Your task to perform on an android device: toggle priority inbox in the gmail app Image 0: 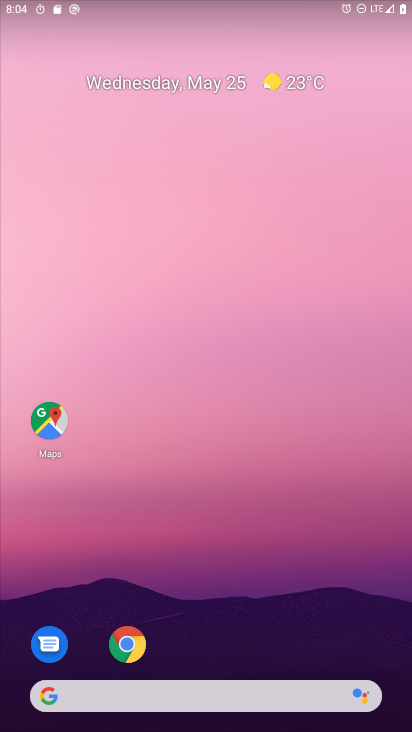
Step 0: drag from (351, 631) to (323, 31)
Your task to perform on an android device: toggle priority inbox in the gmail app Image 1: 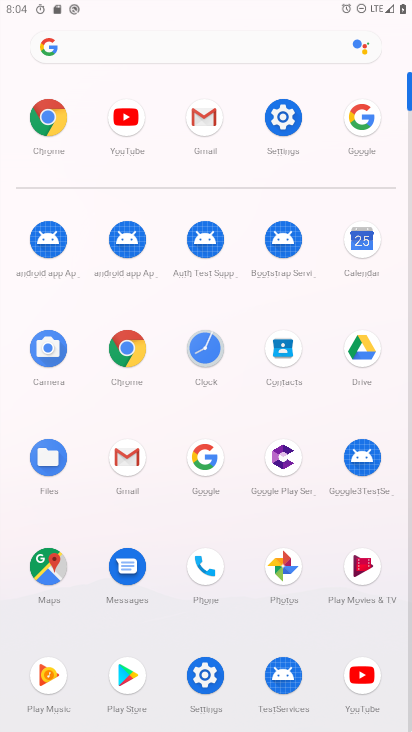
Step 1: click (128, 473)
Your task to perform on an android device: toggle priority inbox in the gmail app Image 2: 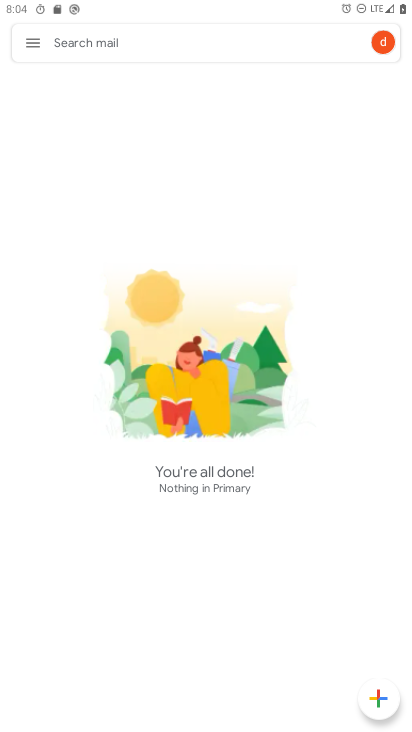
Step 2: click (39, 48)
Your task to perform on an android device: toggle priority inbox in the gmail app Image 3: 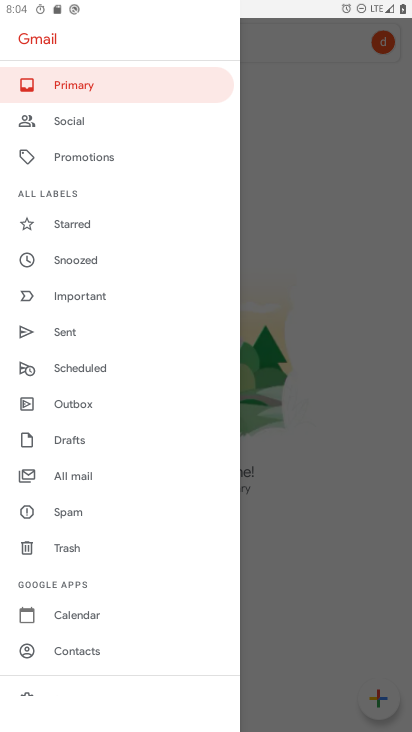
Step 3: drag from (84, 641) to (125, 314)
Your task to perform on an android device: toggle priority inbox in the gmail app Image 4: 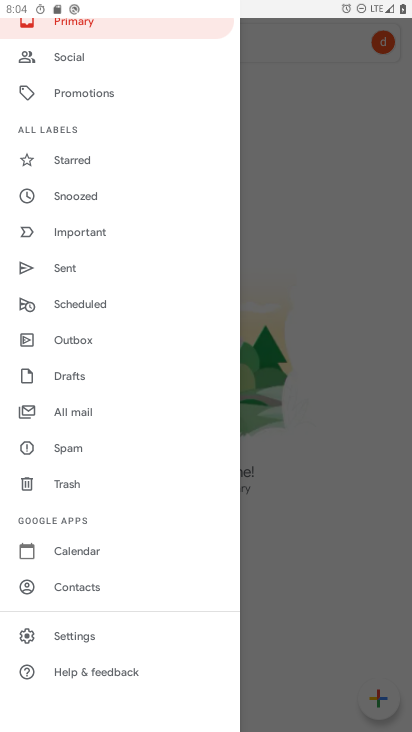
Step 4: click (88, 639)
Your task to perform on an android device: toggle priority inbox in the gmail app Image 5: 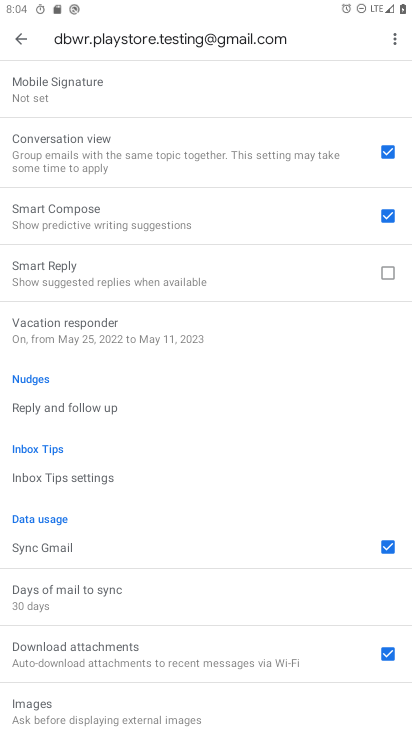
Step 5: drag from (169, 160) to (214, 709)
Your task to perform on an android device: toggle priority inbox in the gmail app Image 6: 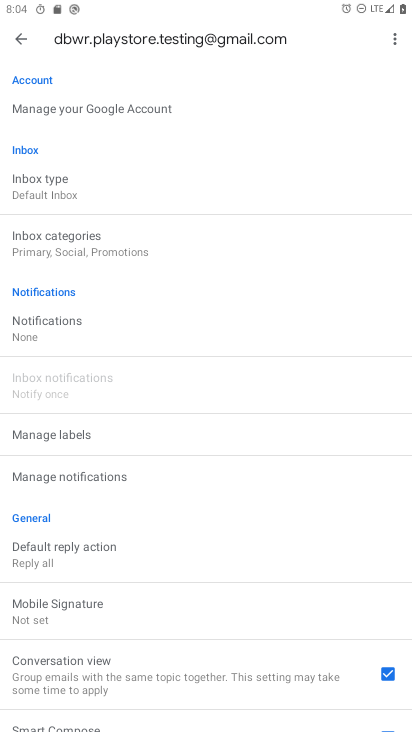
Step 6: click (145, 203)
Your task to perform on an android device: toggle priority inbox in the gmail app Image 7: 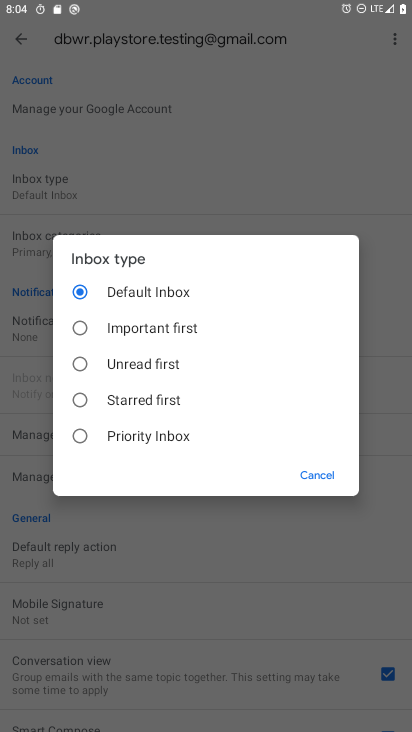
Step 7: click (80, 437)
Your task to perform on an android device: toggle priority inbox in the gmail app Image 8: 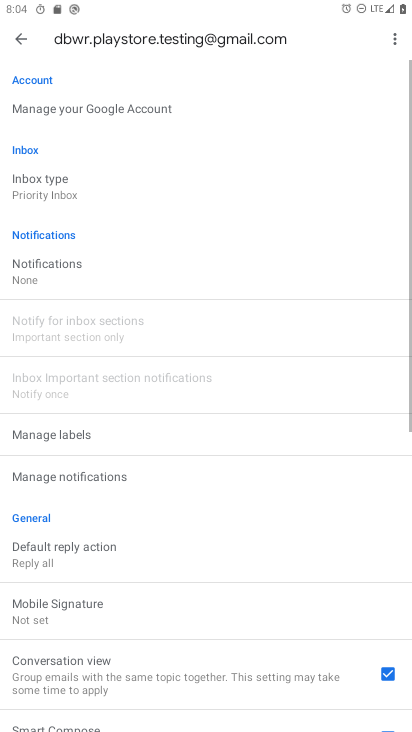
Step 8: click (91, 179)
Your task to perform on an android device: toggle priority inbox in the gmail app Image 9: 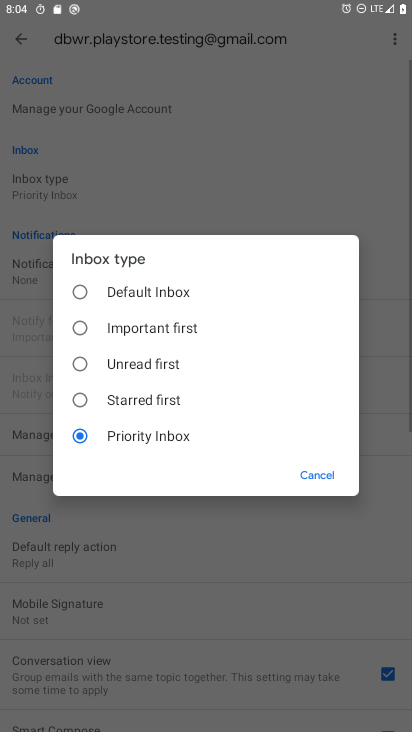
Step 9: click (91, 295)
Your task to perform on an android device: toggle priority inbox in the gmail app Image 10: 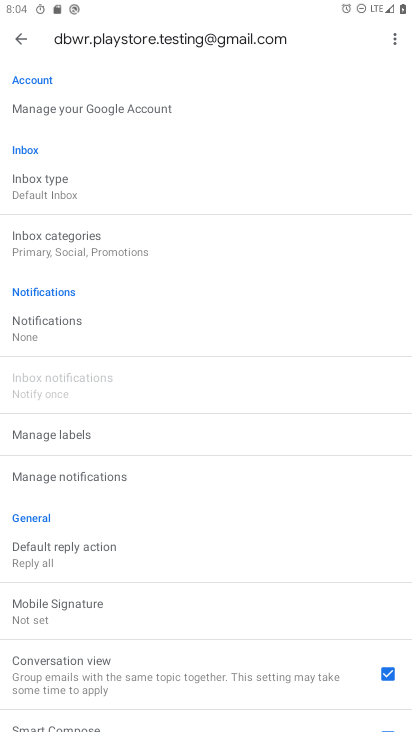
Step 10: task complete